Your task to perform on an android device: Open the map Image 0: 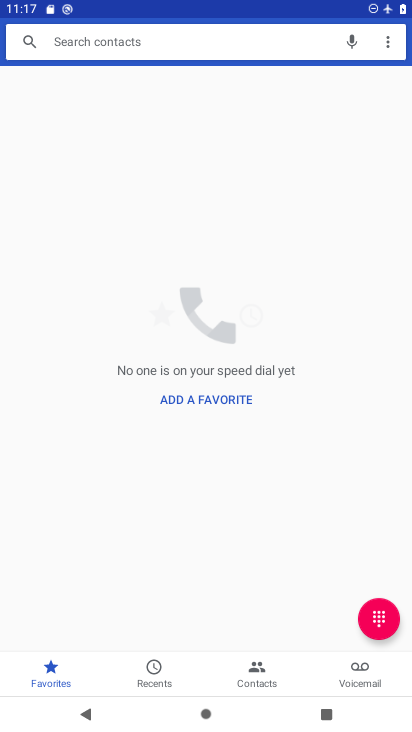
Step 0: press home button
Your task to perform on an android device: Open the map Image 1: 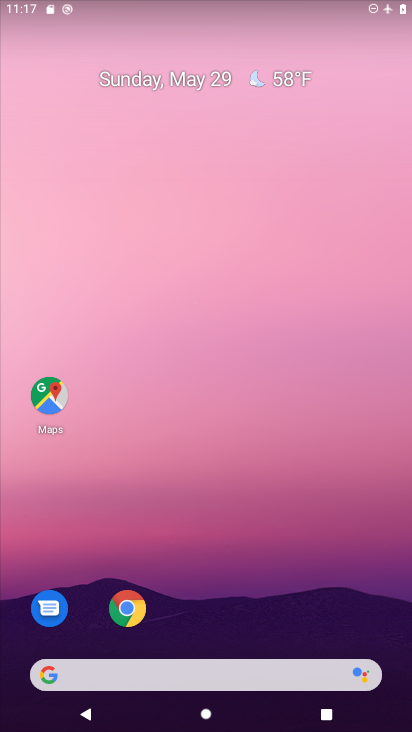
Step 1: click (64, 385)
Your task to perform on an android device: Open the map Image 2: 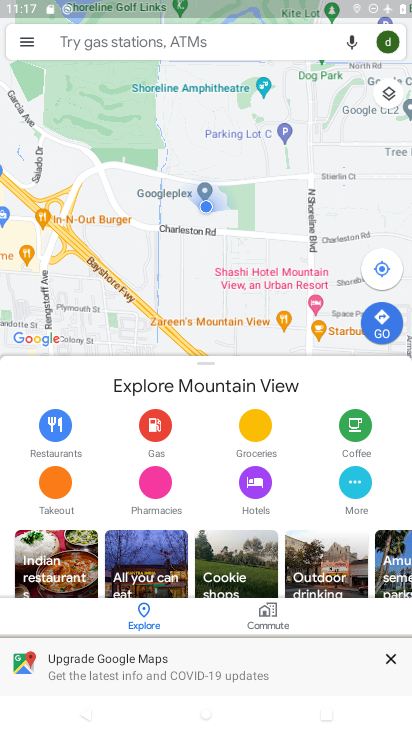
Step 2: task complete